Your task to perform on an android device: Add usb-b to the cart on ebay Image 0: 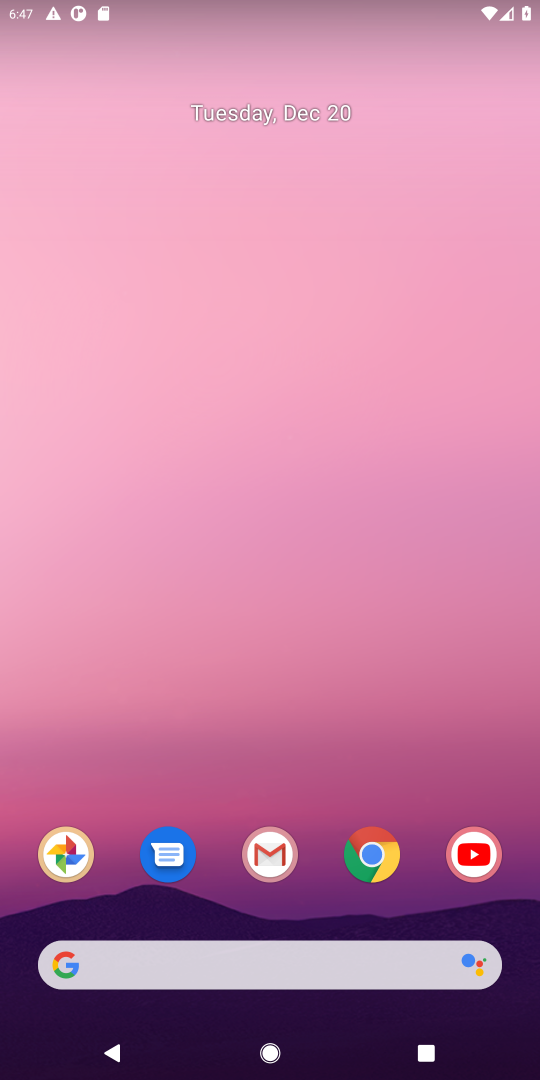
Step 0: click (377, 864)
Your task to perform on an android device: Add usb-b to the cart on ebay Image 1: 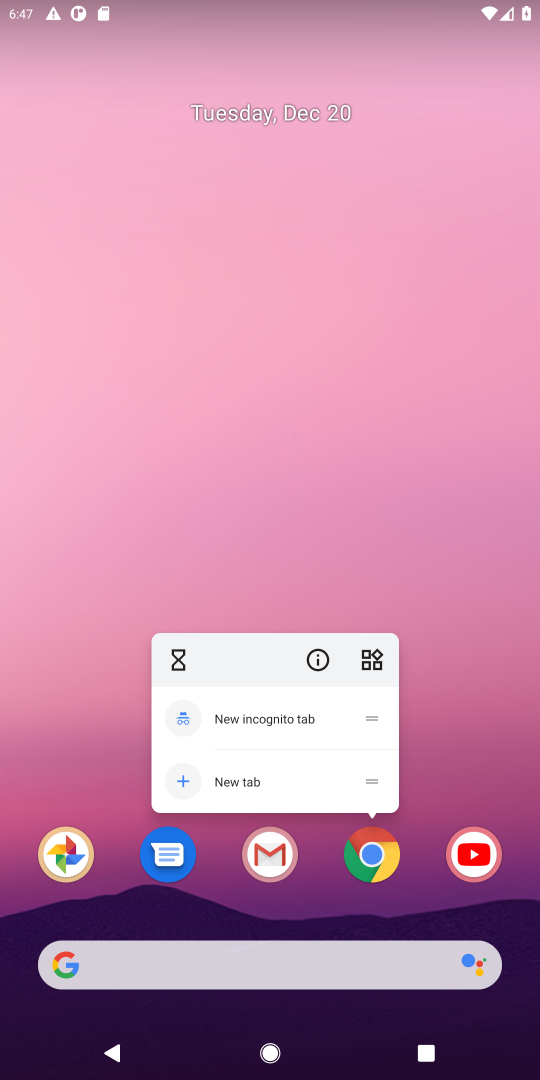
Step 1: click (377, 864)
Your task to perform on an android device: Add usb-b to the cart on ebay Image 2: 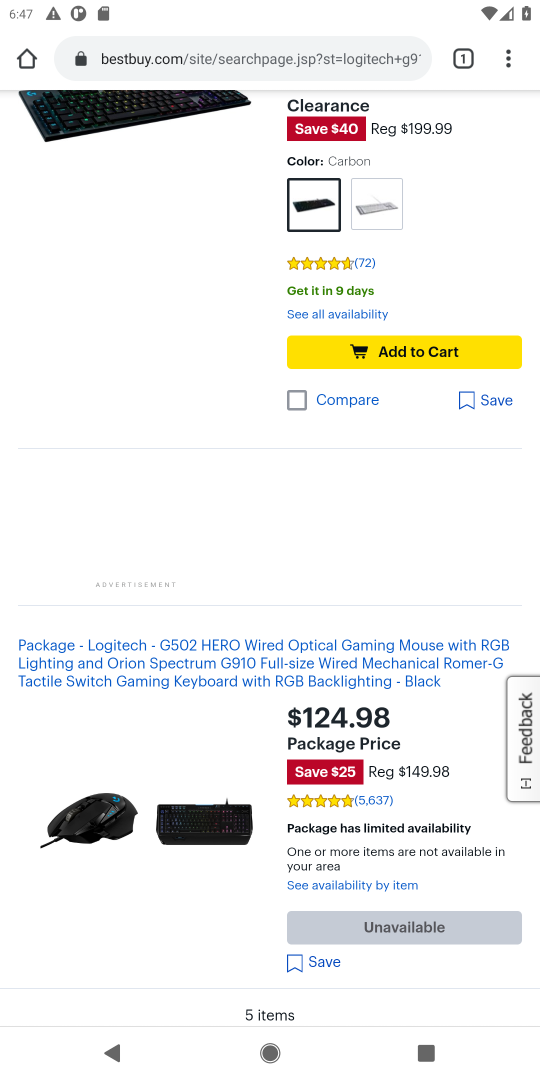
Step 2: click (191, 54)
Your task to perform on an android device: Add usb-b to the cart on ebay Image 3: 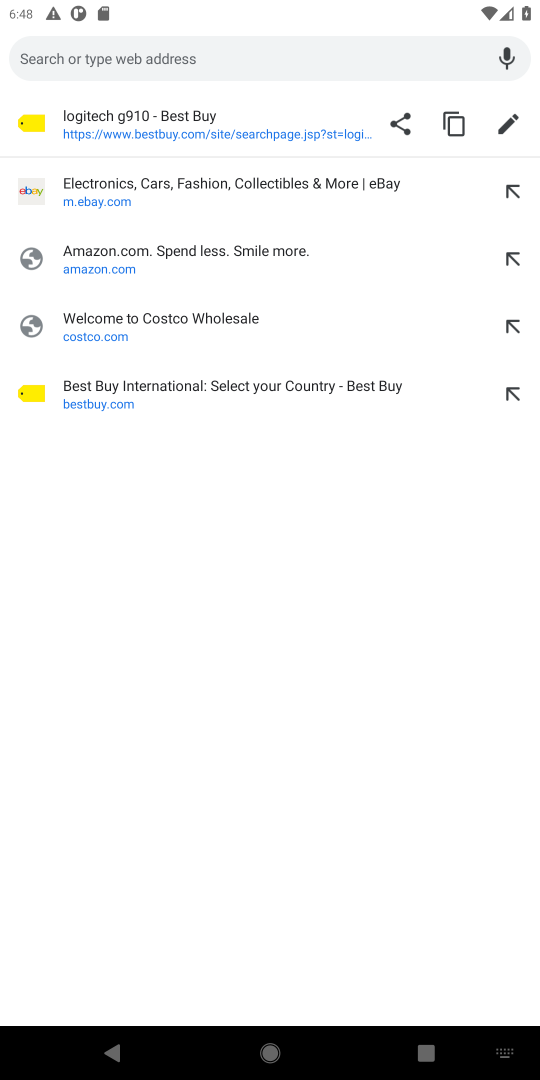
Step 3: click (109, 198)
Your task to perform on an android device: Add usb-b to the cart on ebay Image 4: 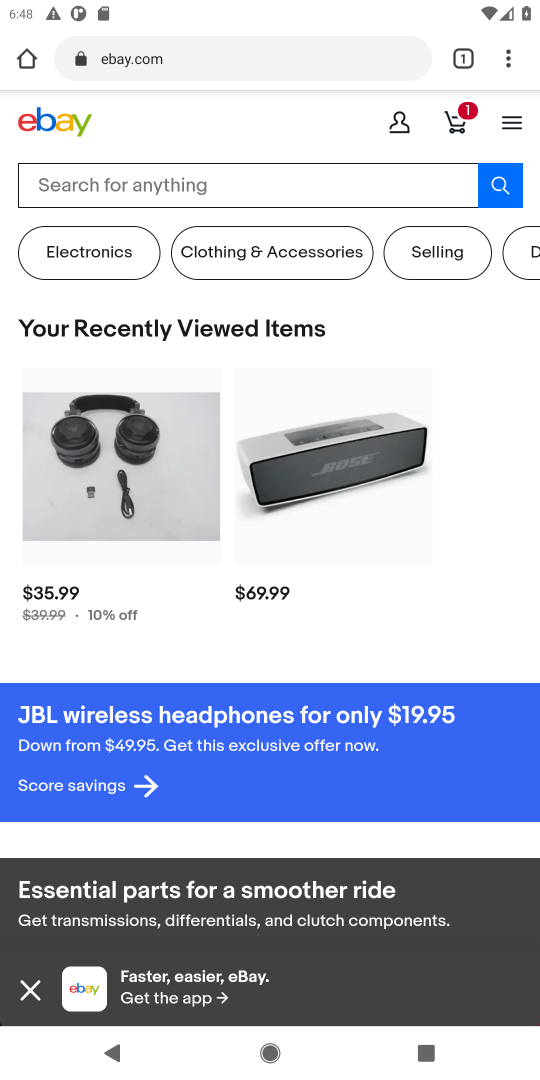
Step 4: click (109, 198)
Your task to perform on an android device: Add usb-b to the cart on ebay Image 5: 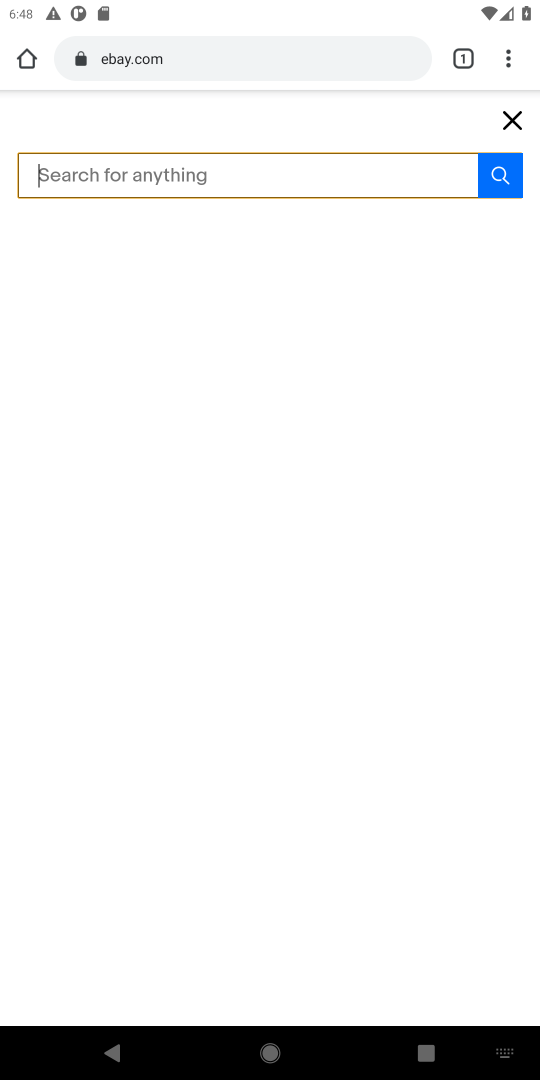
Step 5: type "usb-b"
Your task to perform on an android device: Add usb-b to the cart on ebay Image 6: 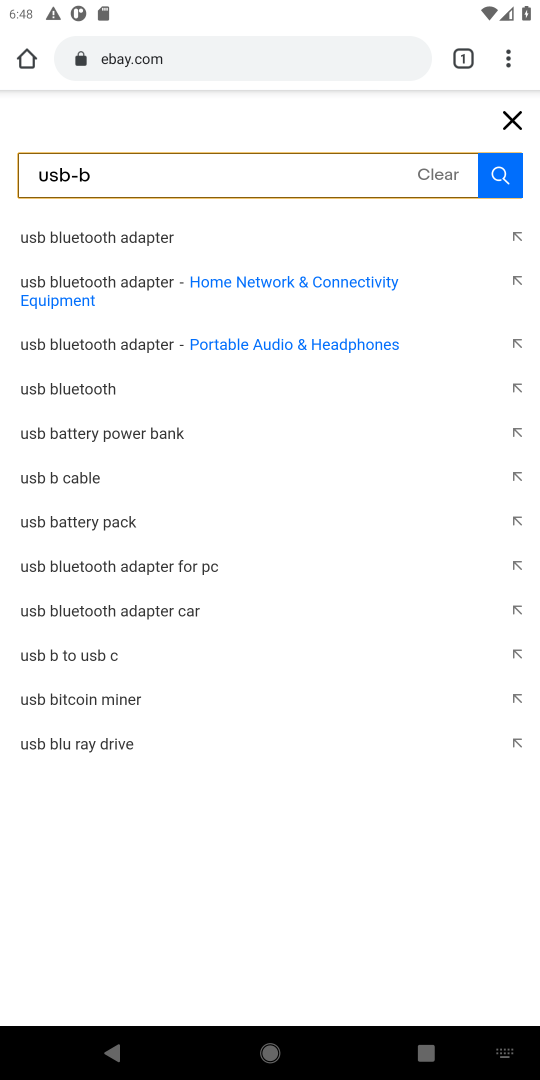
Step 6: click (494, 184)
Your task to perform on an android device: Add usb-b to the cart on ebay Image 7: 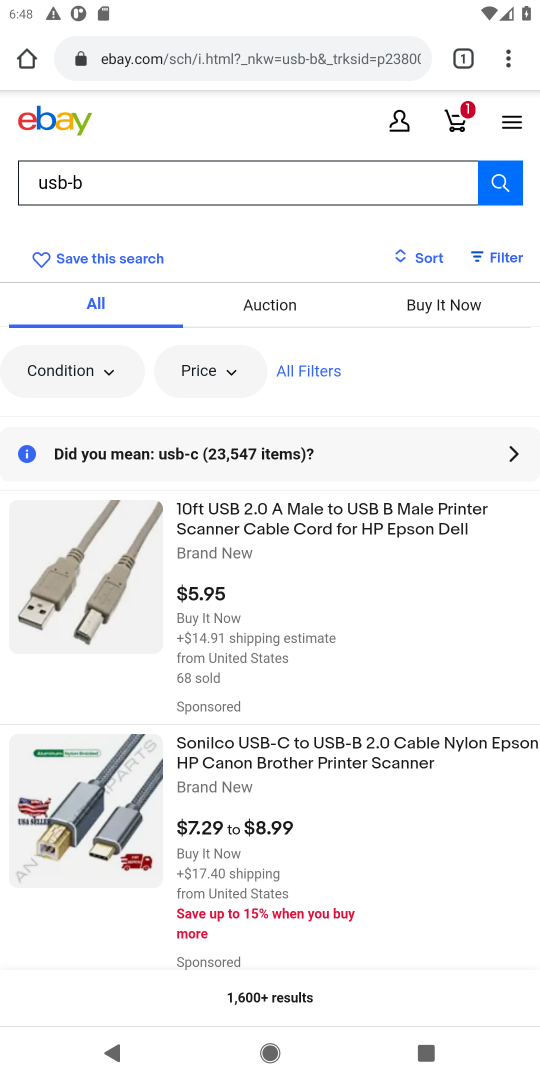
Step 7: drag from (211, 590) to (224, 393)
Your task to perform on an android device: Add usb-b to the cart on ebay Image 8: 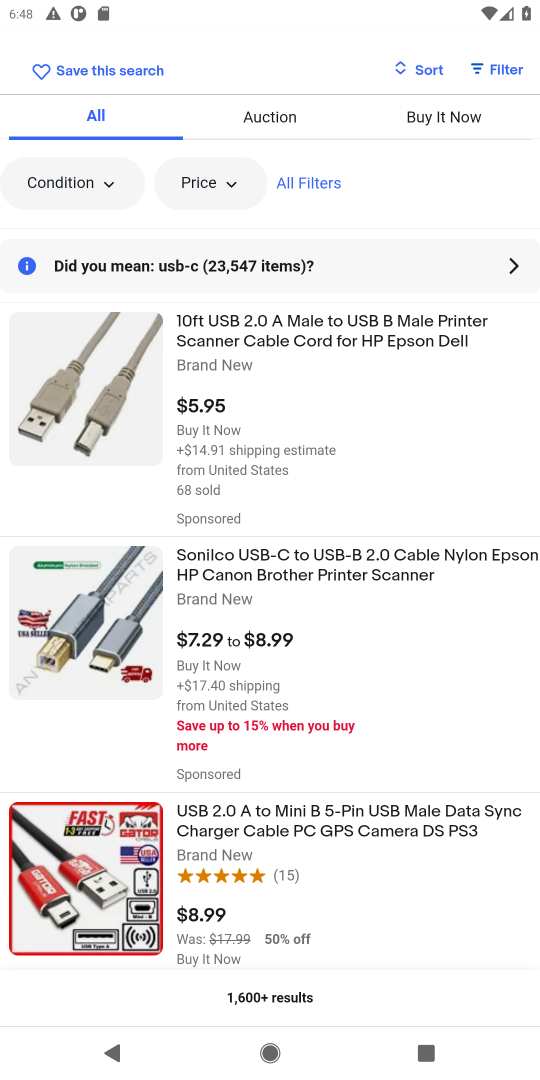
Step 8: click (238, 340)
Your task to perform on an android device: Add usb-b to the cart on ebay Image 9: 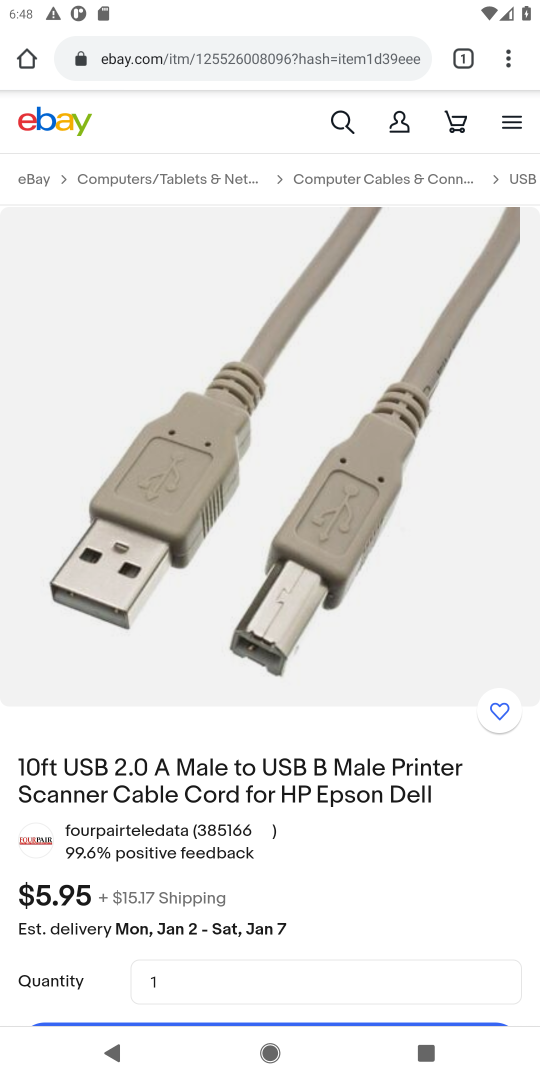
Step 9: drag from (226, 769) to (196, 234)
Your task to perform on an android device: Add usb-b to the cart on ebay Image 10: 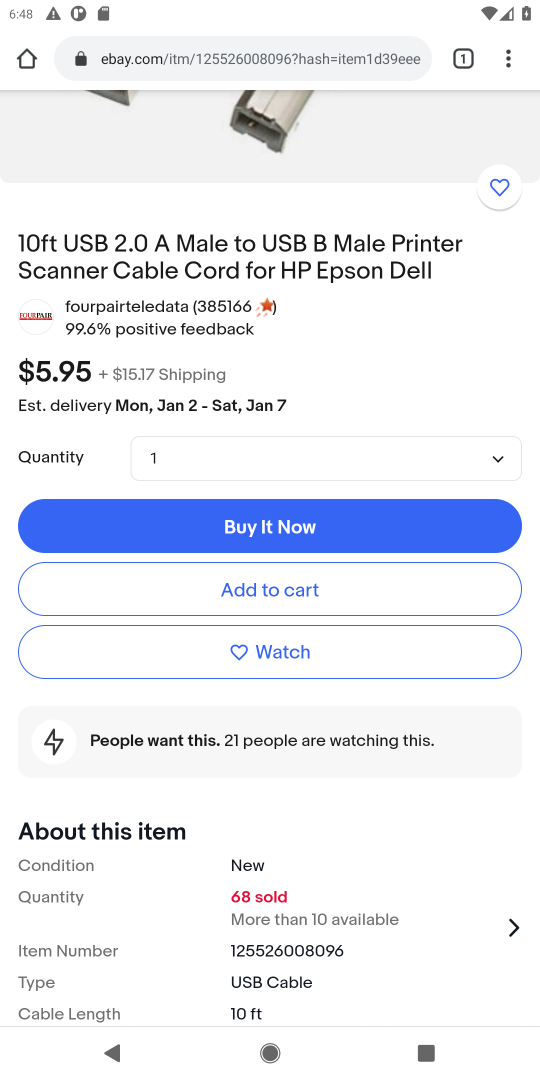
Step 10: click (198, 605)
Your task to perform on an android device: Add usb-b to the cart on ebay Image 11: 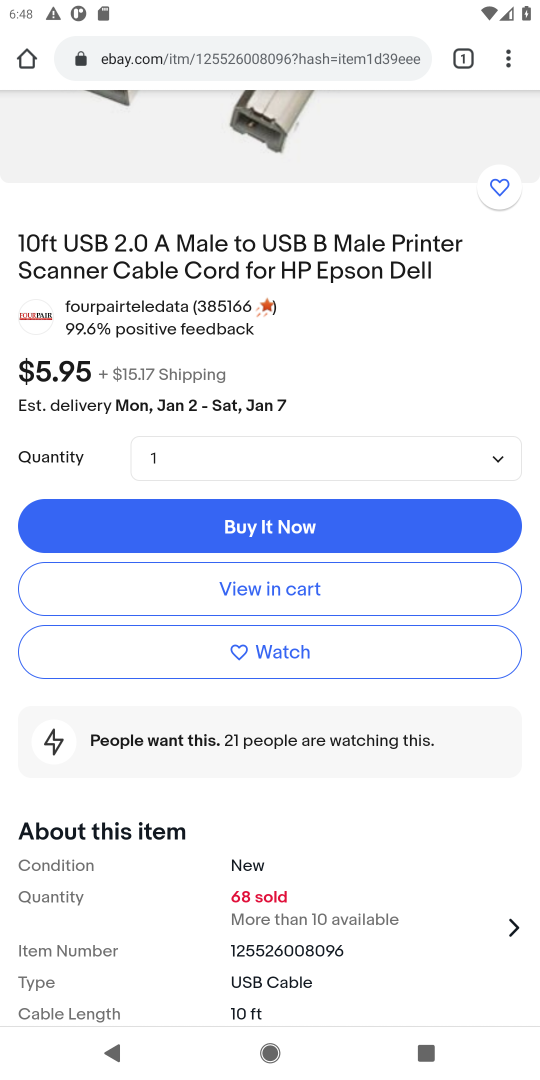
Step 11: task complete